Your task to perform on an android device: Open Reddit.com Image 0: 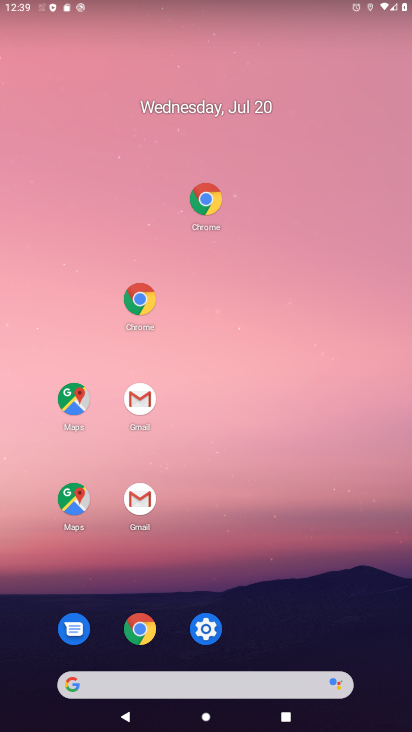
Step 0: drag from (324, 622) to (243, 233)
Your task to perform on an android device: Open Reddit.com Image 1: 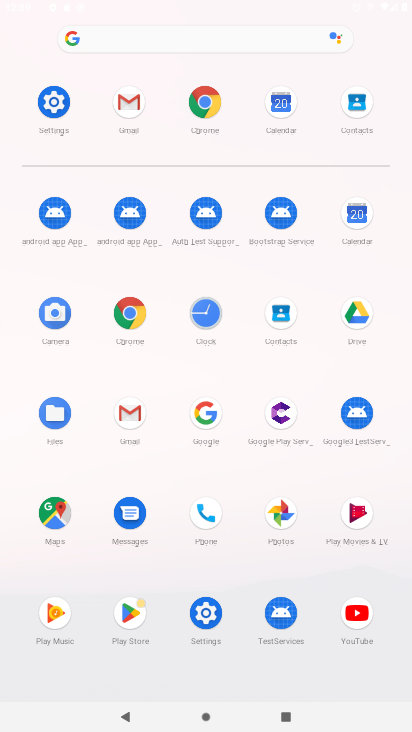
Step 1: click (206, 103)
Your task to perform on an android device: Open Reddit.com Image 2: 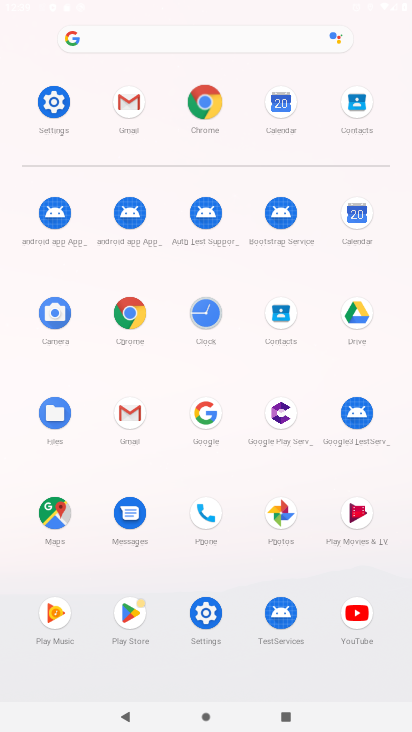
Step 2: click (206, 101)
Your task to perform on an android device: Open Reddit.com Image 3: 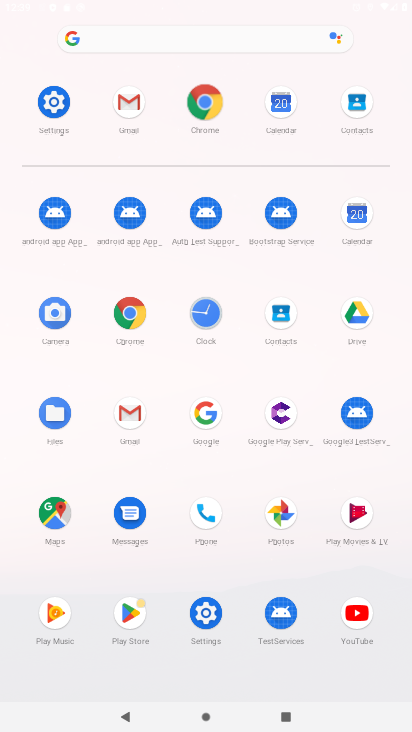
Step 3: click (208, 101)
Your task to perform on an android device: Open Reddit.com Image 4: 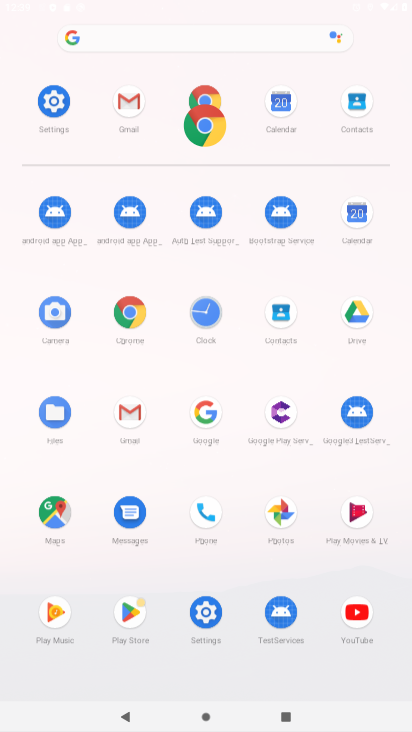
Step 4: click (213, 105)
Your task to perform on an android device: Open Reddit.com Image 5: 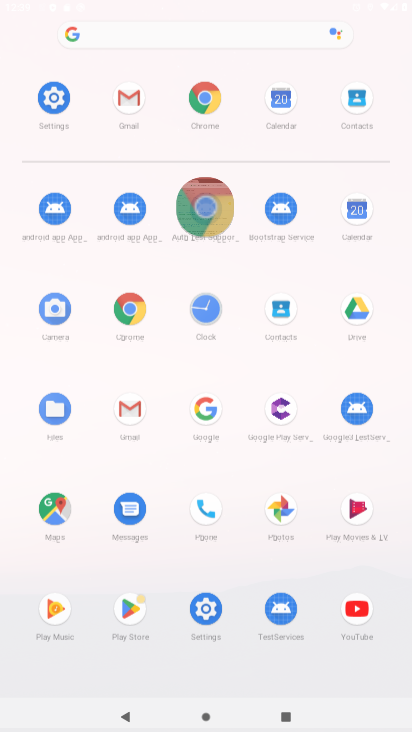
Step 5: click (214, 105)
Your task to perform on an android device: Open Reddit.com Image 6: 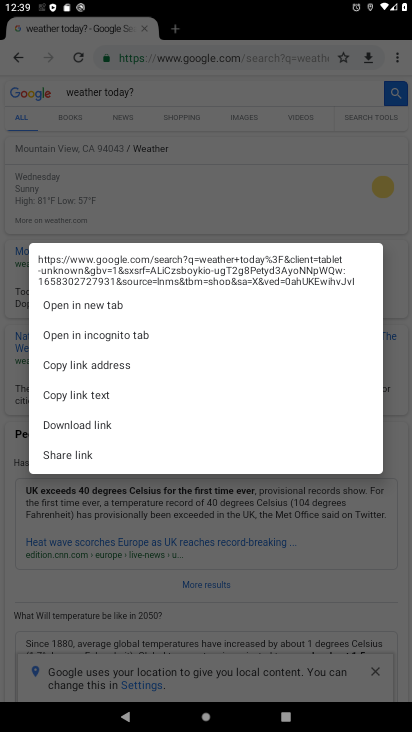
Step 6: click (173, 211)
Your task to perform on an android device: Open Reddit.com Image 7: 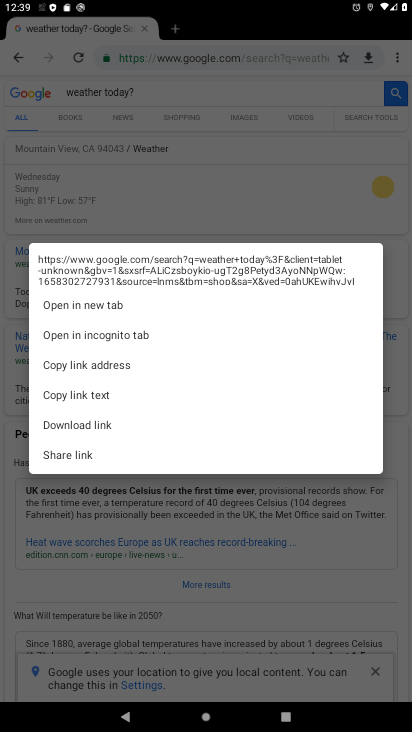
Step 7: click (174, 209)
Your task to perform on an android device: Open Reddit.com Image 8: 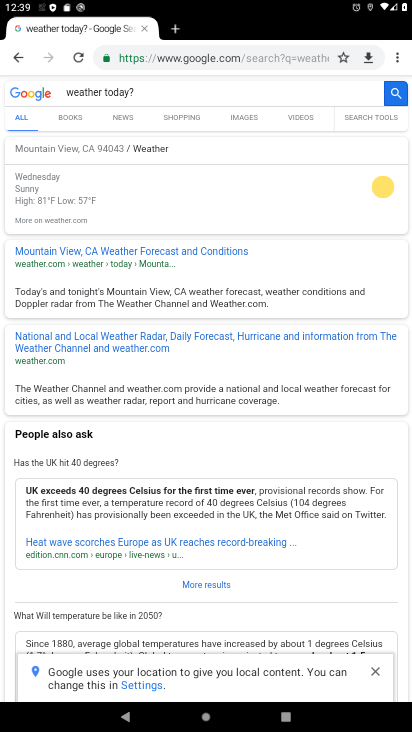
Step 8: click (174, 209)
Your task to perform on an android device: Open Reddit.com Image 9: 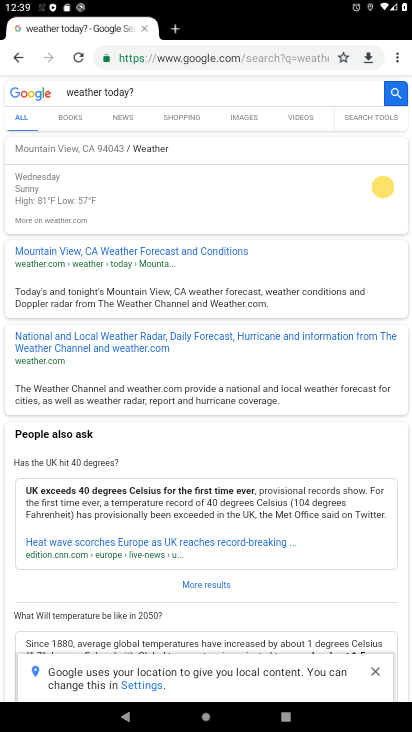
Step 9: drag from (395, 62) to (291, 55)
Your task to perform on an android device: Open Reddit.com Image 10: 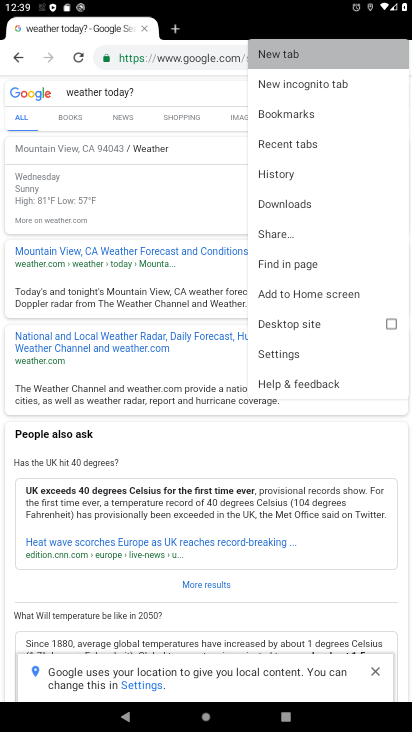
Step 10: click (291, 56)
Your task to perform on an android device: Open Reddit.com Image 11: 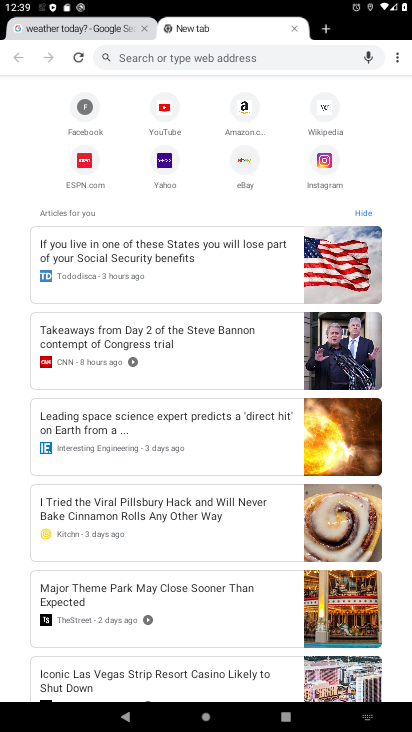
Step 11: type "reddit.com"
Your task to perform on an android device: Open Reddit.com Image 12: 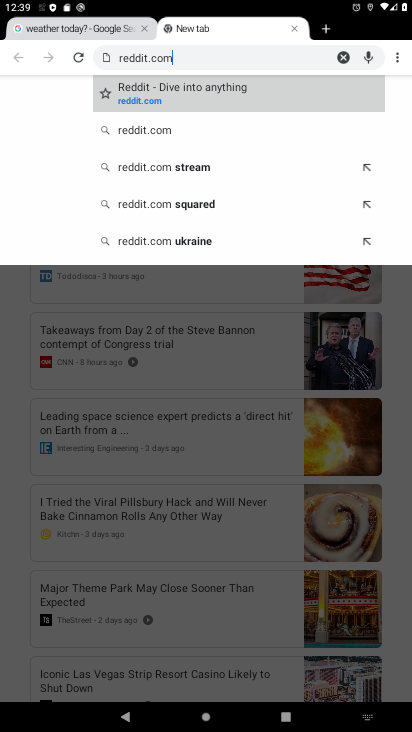
Step 12: click (128, 86)
Your task to perform on an android device: Open Reddit.com Image 13: 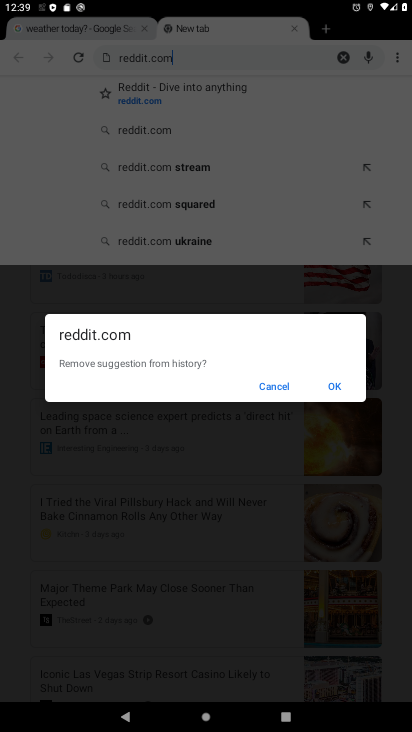
Step 13: click (144, 85)
Your task to perform on an android device: Open Reddit.com Image 14: 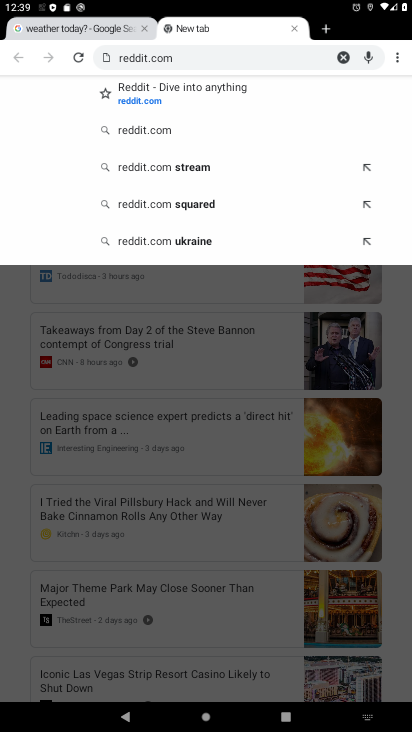
Step 14: click (148, 88)
Your task to perform on an android device: Open Reddit.com Image 15: 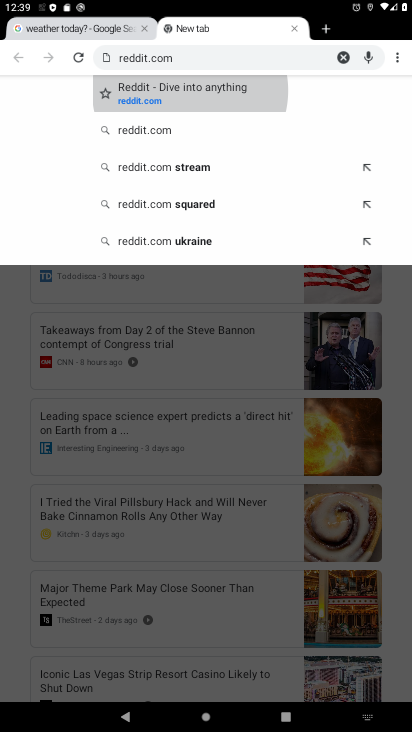
Step 15: click (148, 88)
Your task to perform on an android device: Open Reddit.com Image 16: 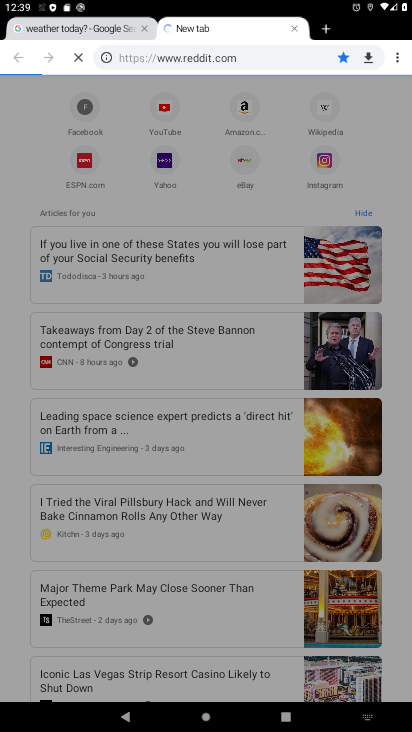
Step 16: click (148, 89)
Your task to perform on an android device: Open Reddit.com Image 17: 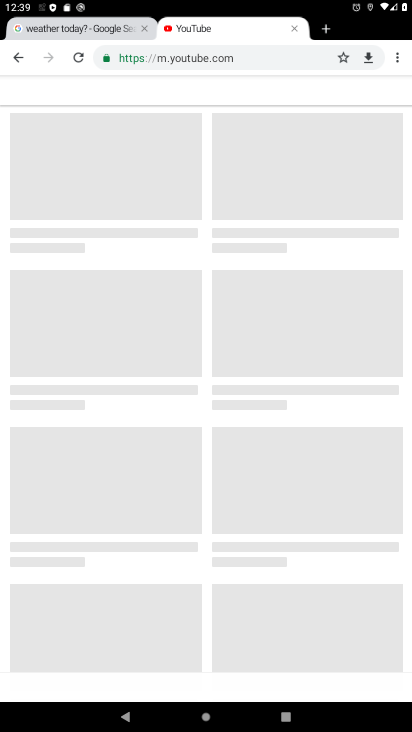
Step 17: task complete